Your task to perform on an android device: read, delete, or share a saved page in the chrome app Image 0: 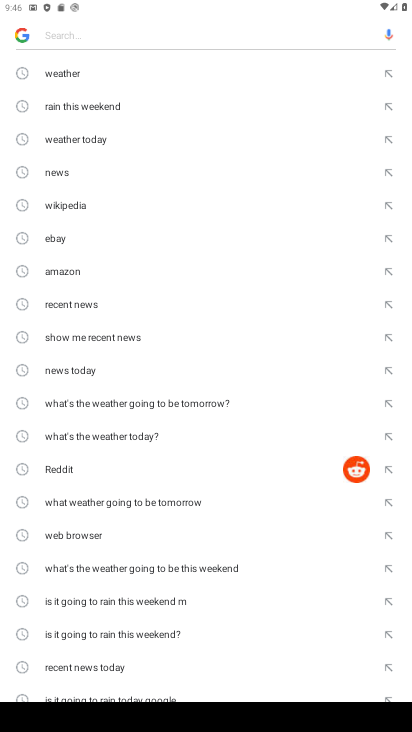
Step 0: press home button
Your task to perform on an android device: read, delete, or share a saved page in the chrome app Image 1: 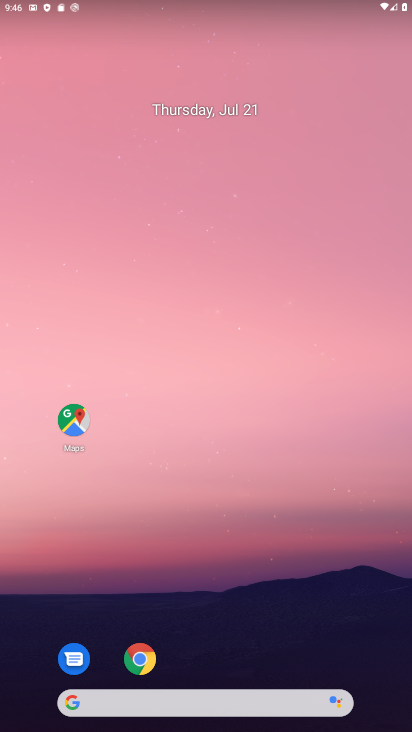
Step 1: drag from (248, 637) to (268, 99)
Your task to perform on an android device: read, delete, or share a saved page in the chrome app Image 2: 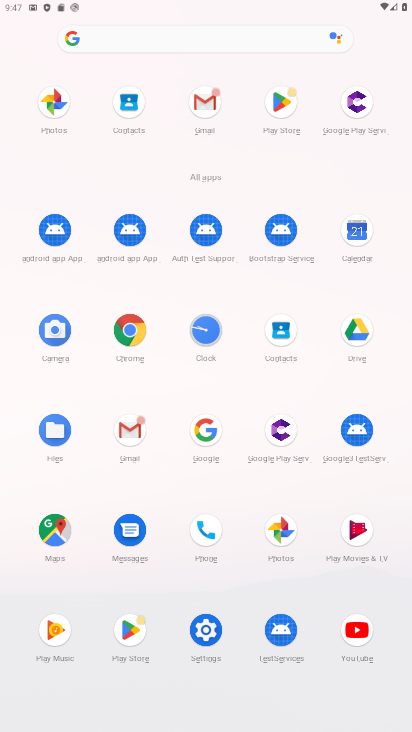
Step 2: click (128, 337)
Your task to perform on an android device: read, delete, or share a saved page in the chrome app Image 3: 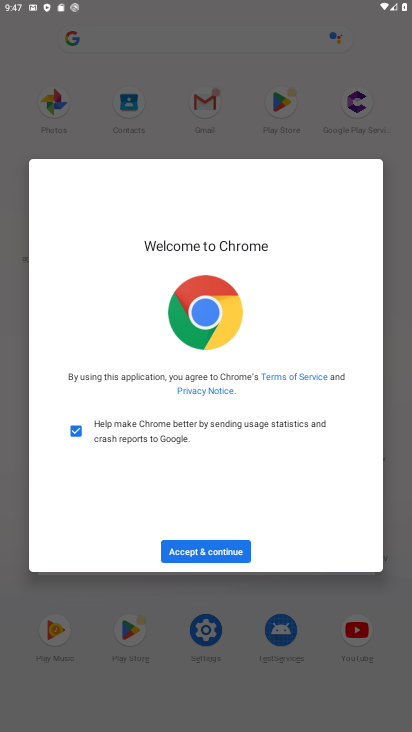
Step 3: click (212, 545)
Your task to perform on an android device: read, delete, or share a saved page in the chrome app Image 4: 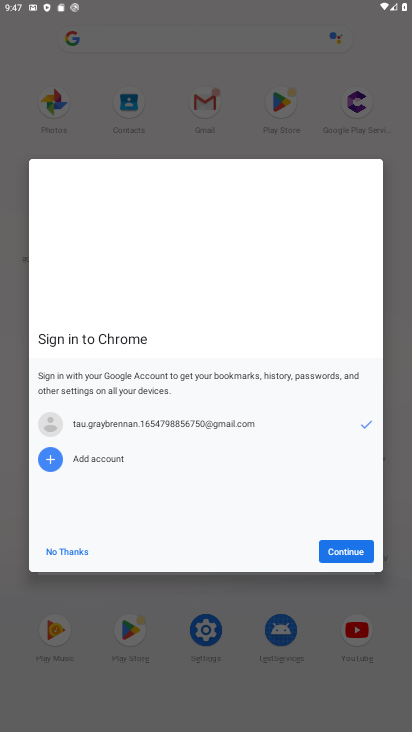
Step 4: click (335, 546)
Your task to perform on an android device: read, delete, or share a saved page in the chrome app Image 5: 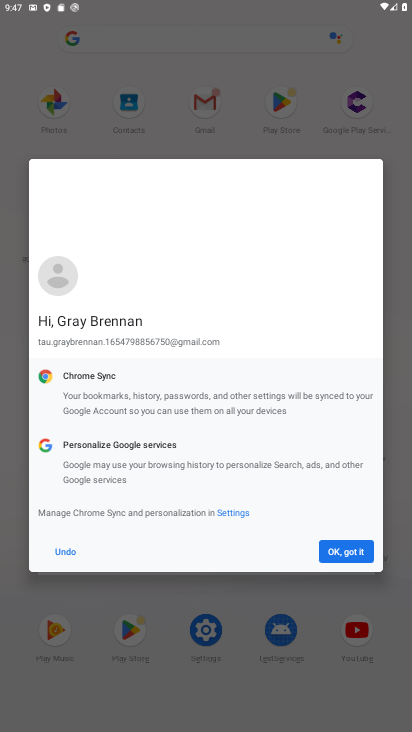
Step 5: click (338, 548)
Your task to perform on an android device: read, delete, or share a saved page in the chrome app Image 6: 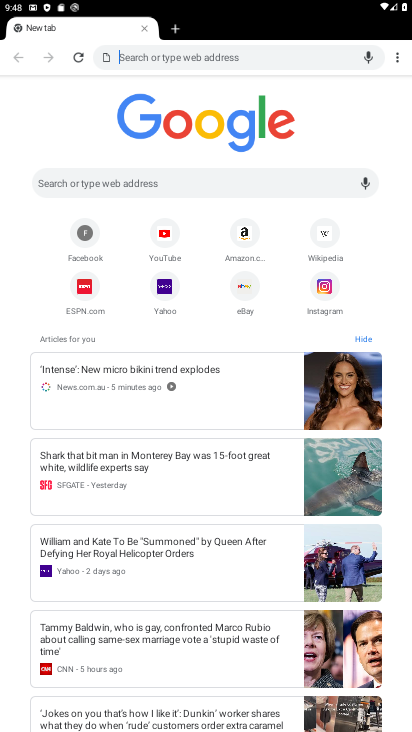
Step 6: task complete